Your task to perform on an android device: Open wifi settings Image 0: 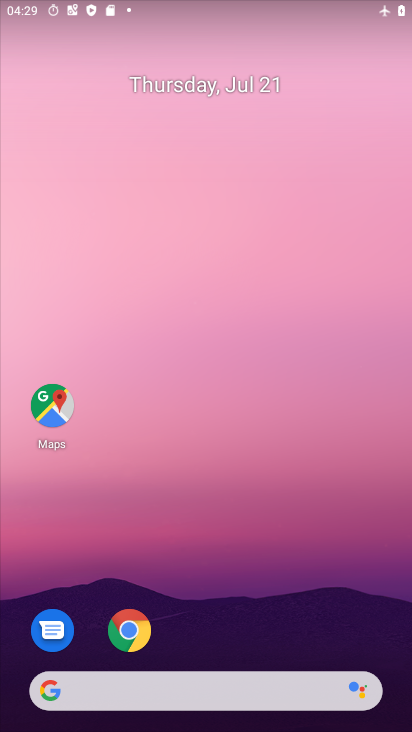
Step 0: drag from (216, 14) to (239, 719)
Your task to perform on an android device: Open wifi settings Image 1: 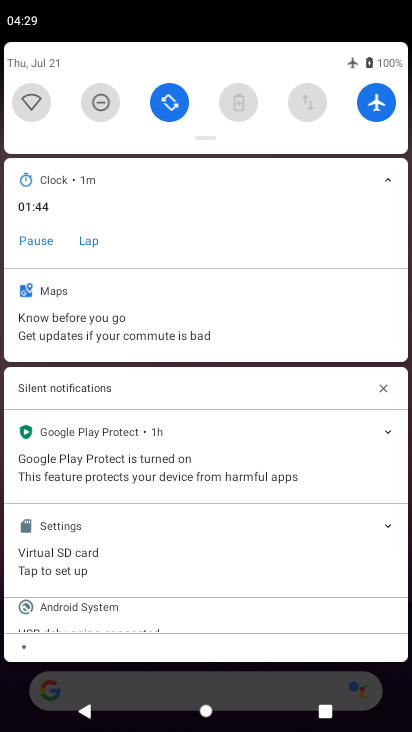
Step 1: click (39, 101)
Your task to perform on an android device: Open wifi settings Image 2: 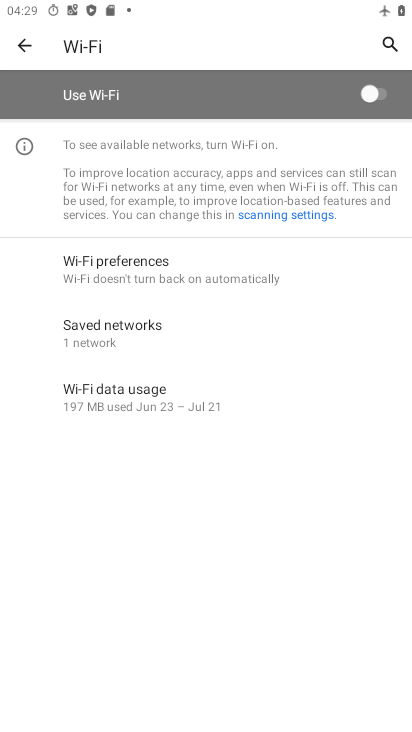
Step 2: task complete